Your task to perform on an android device: open chrome privacy settings Image 0: 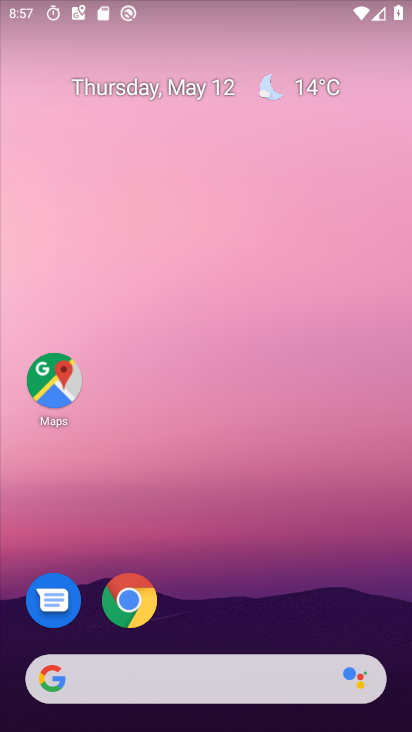
Step 0: drag from (301, 604) to (69, 56)
Your task to perform on an android device: open chrome privacy settings Image 1: 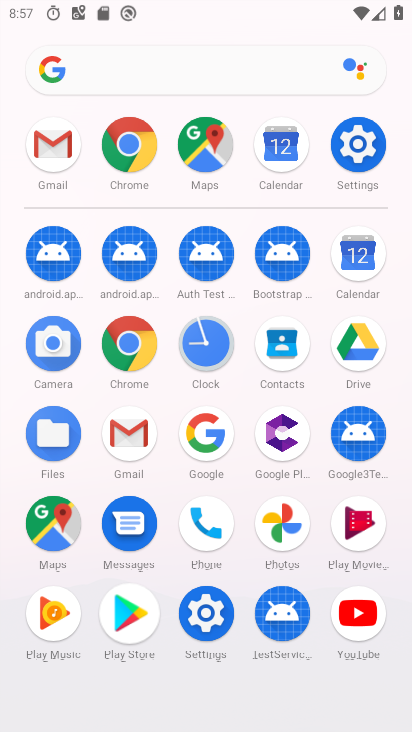
Step 1: click (127, 159)
Your task to perform on an android device: open chrome privacy settings Image 2: 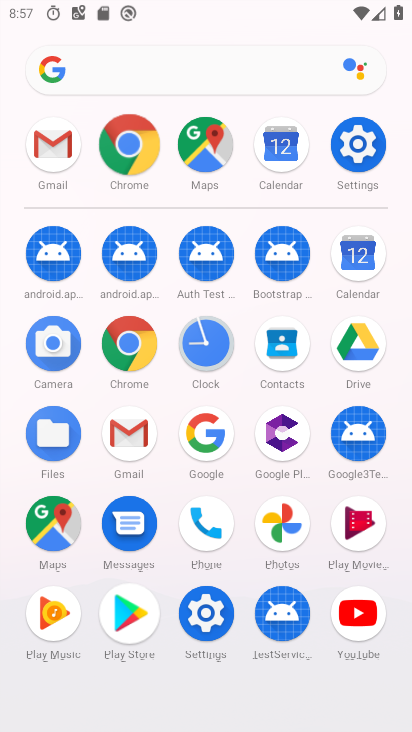
Step 2: click (127, 157)
Your task to perform on an android device: open chrome privacy settings Image 3: 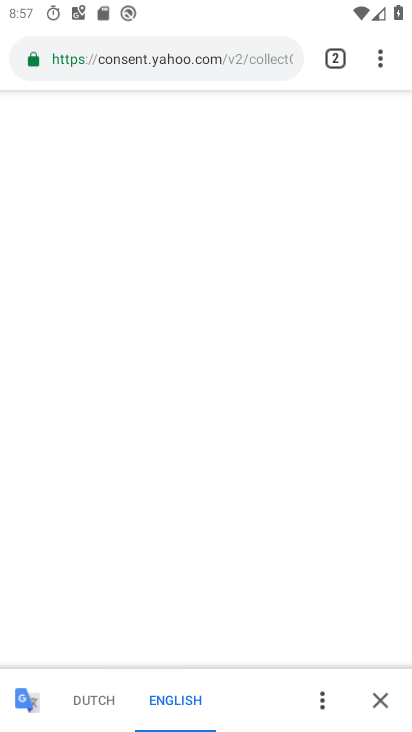
Step 3: click (375, 62)
Your task to perform on an android device: open chrome privacy settings Image 4: 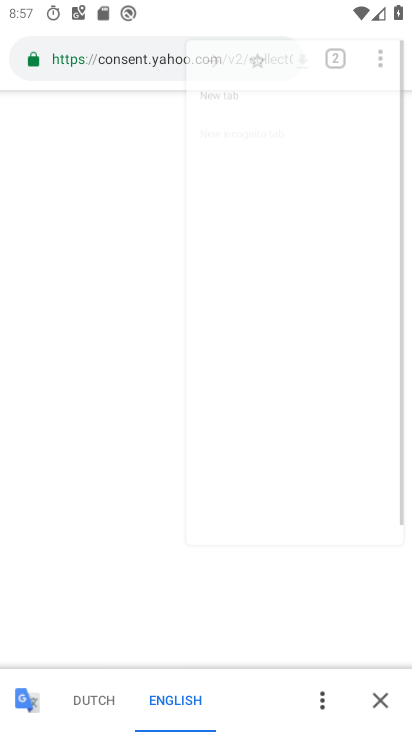
Step 4: click (377, 60)
Your task to perform on an android device: open chrome privacy settings Image 5: 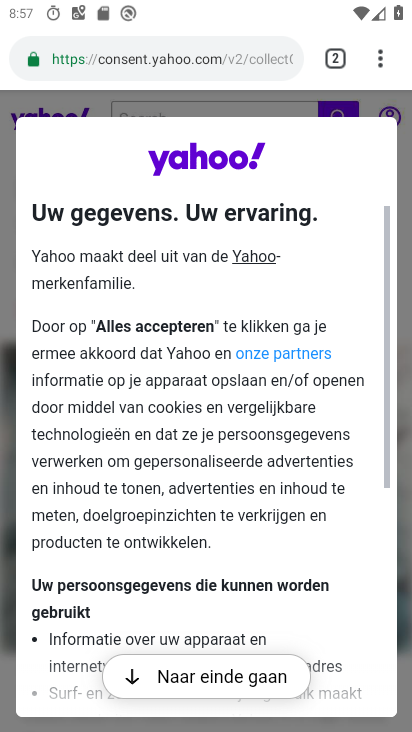
Step 5: drag from (381, 60) to (168, 626)
Your task to perform on an android device: open chrome privacy settings Image 6: 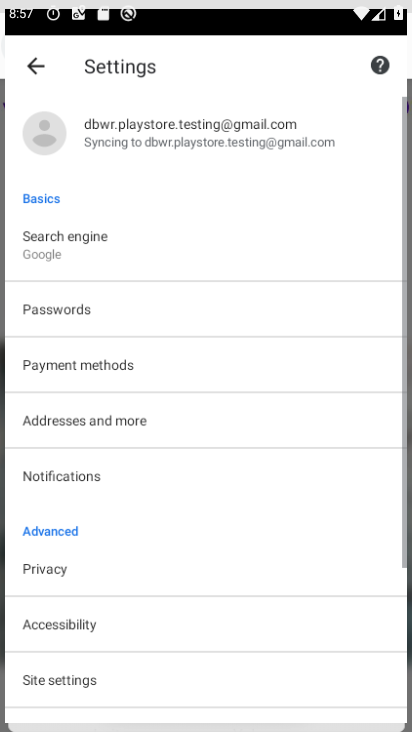
Step 6: click (172, 622)
Your task to perform on an android device: open chrome privacy settings Image 7: 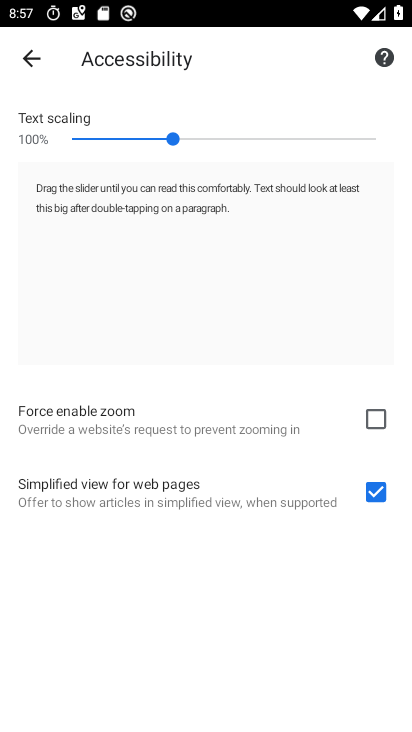
Step 7: click (37, 61)
Your task to perform on an android device: open chrome privacy settings Image 8: 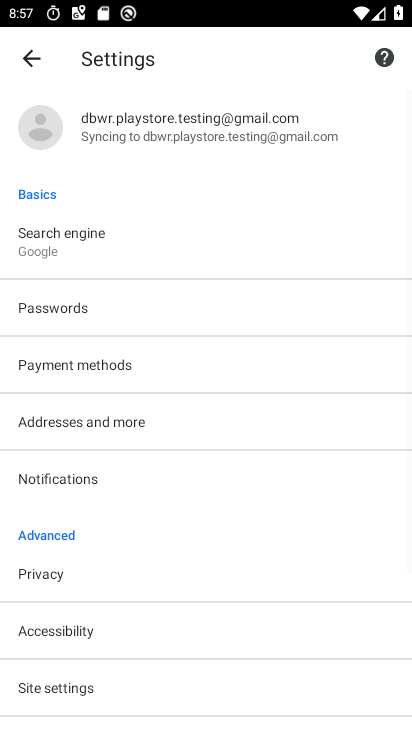
Step 8: drag from (173, 514) to (101, 286)
Your task to perform on an android device: open chrome privacy settings Image 9: 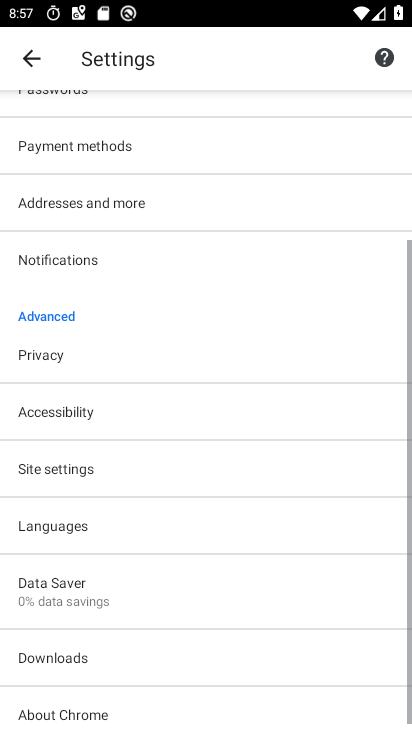
Step 9: click (167, 94)
Your task to perform on an android device: open chrome privacy settings Image 10: 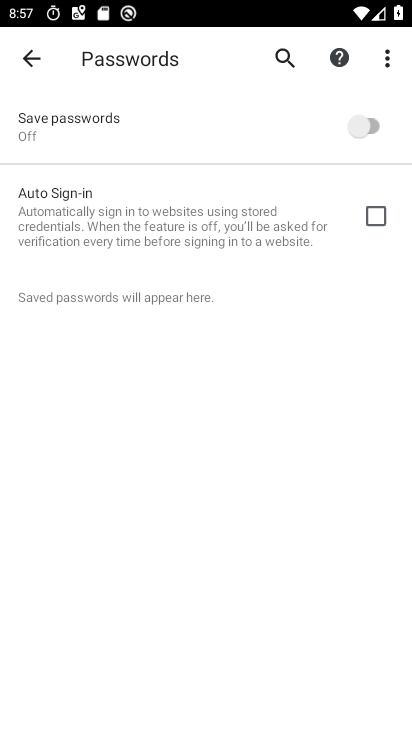
Step 10: click (28, 48)
Your task to perform on an android device: open chrome privacy settings Image 11: 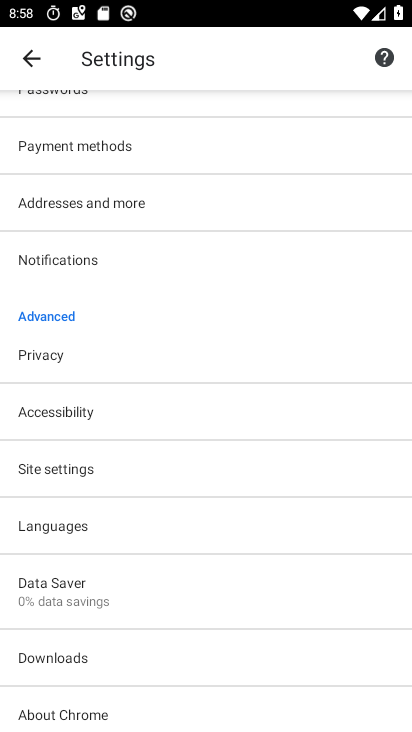
Step 11: click (21, 350)
Your task to perform on an android device: open chrome privacy settings Image 12: 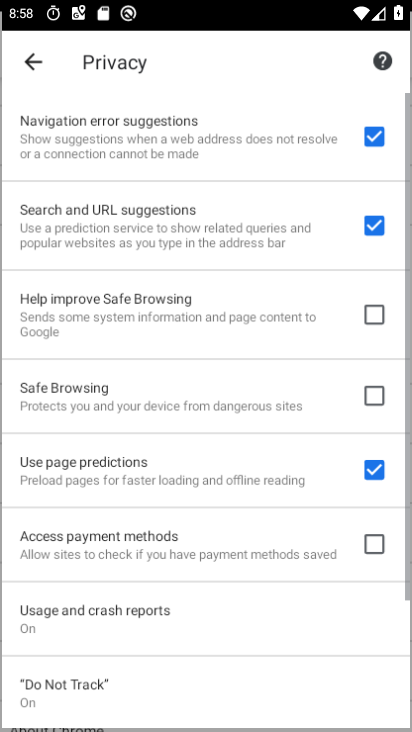
Step 12: click (41, 357)
Your task to perform on an android device: open chrome privacy settings Image 13: 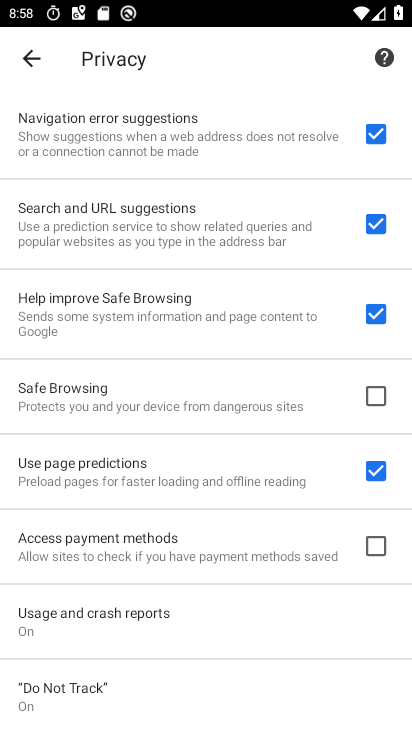
Step 13: task complete